Your task to perform on an android device: turn off translation in the chrome app Image 0: 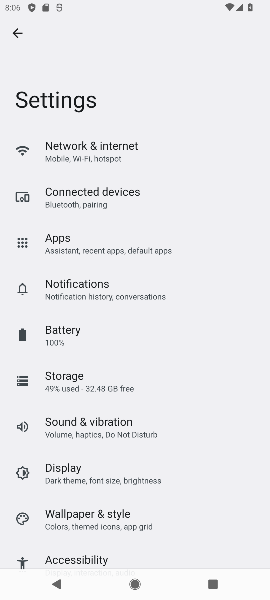
Step 0: drag from (139, 502) to (164, 257)
Your task to perform on an android device: turn off translation in the chrome app Image 1: 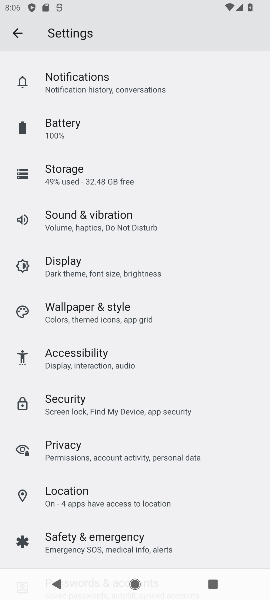
Step 1: drag from (140, 509) to (156, 211)
Your task to perform on an android device: turn off translation in the chrome app Image 2: 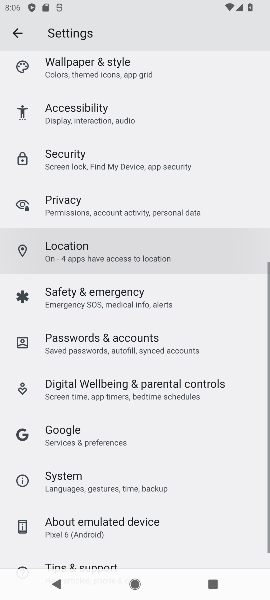
Step 2: drag from (155, 199) to (152, 598)
Your task to perform on an android device: turn off translation in the chrome app Image 3: 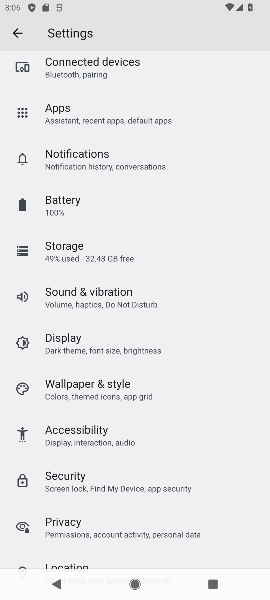
Step 3: press home button
Your task to perform on an android device: turn off translation in the chrome app Image 4: 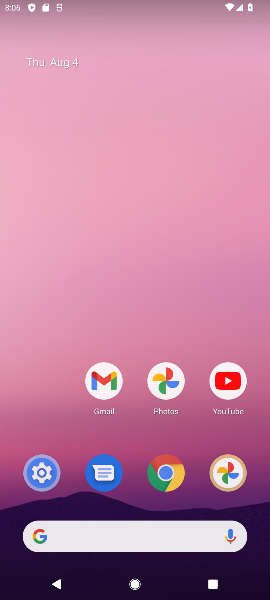
Step 4: drag from (135, 531) to (180, 193)
Your task to perform on an android device: turn off translation in the chrome app Image 5: 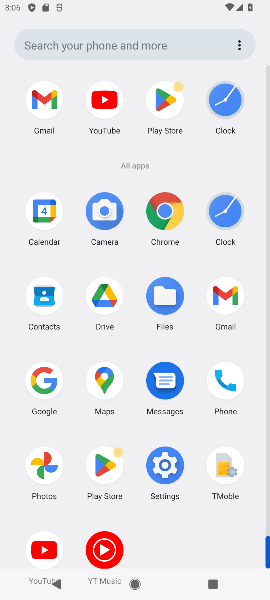
Step 5: click (168, 210)
Your task to perform on an android device: turn off translation in the chrome app Image 6: 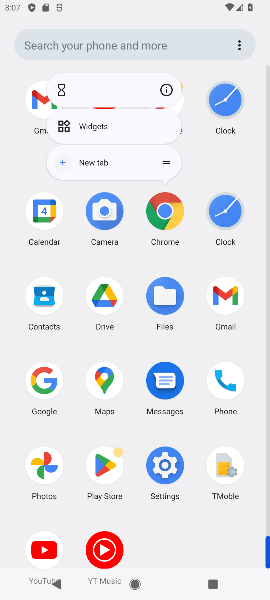
Step 6: click (160, 202)
Your task to perform on an android device: turn off translation in the chrome app Image 7: 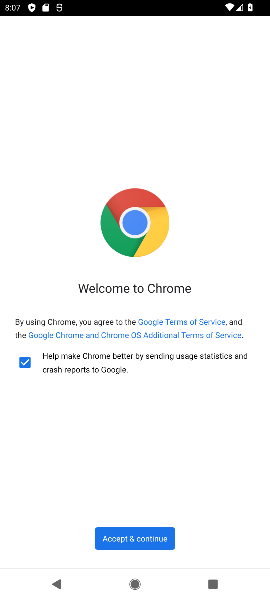
Step 7: drag from (142, 356) to (153, 185)
Your task to perform on an android device: turn off translation in the chrome app Image 8: 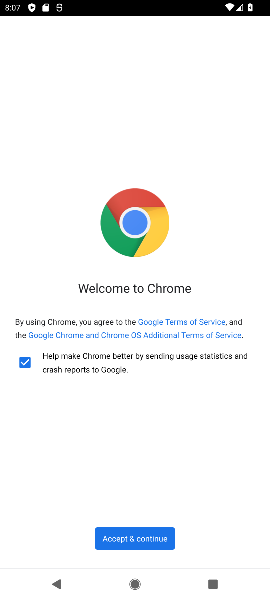
Step 8: drag from (174, 417) to (168, 229)
Your task to perform on an android device: turn off translation in the chrome app Image 9: 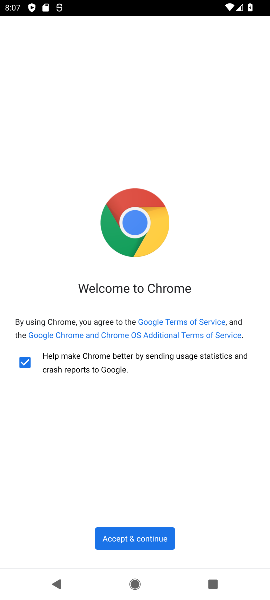
Step 9: drag from (146, 437) to (164, 189)
Your task to perform on an android device: turn off translation in the chrome app Image 10: 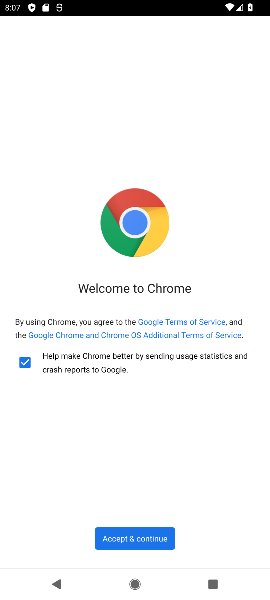
Step 10: click (131, 536)
Your task to perform on an android device: turn off translation in the chrome app Image 11: 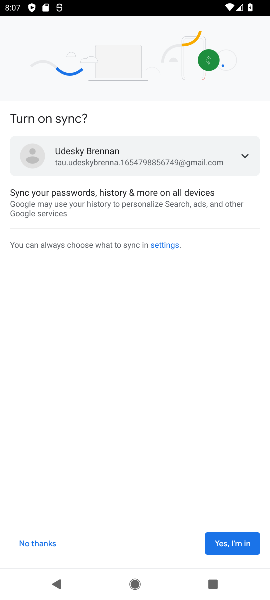
Step 11: click (225, 545)
Your task to perform on an android device: turn off translation in the chrome app Image 12: 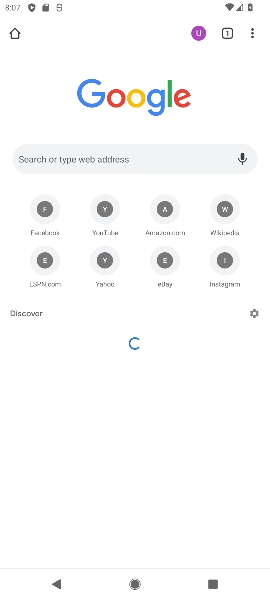
Step 12: click (232, 539)
Your task to perform on an android device: turn off translation in the chrome app Image 13: 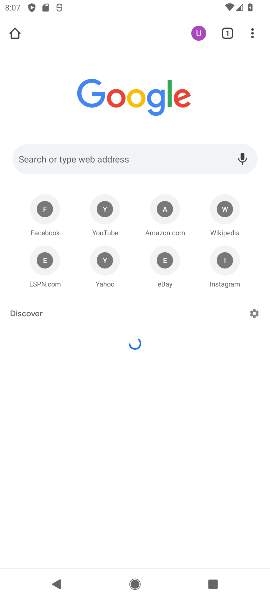
Step 13: drag from (231, 463) to (231, 324)
Your task to perform on an android device: turn off translation in the chrome app Image 14: 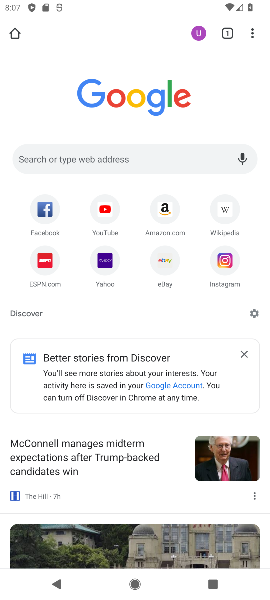
Step 14: drag from (132, 459) to (166, 268)
Your task to perform on an android device: turn off translation in the chrome app Image 15: 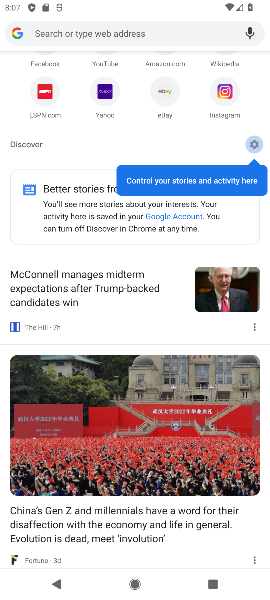
Step 15: drag from (186, 231) to (169, 525)
Your task to perform on an android device: turn off translation in the chrome app Image 16: 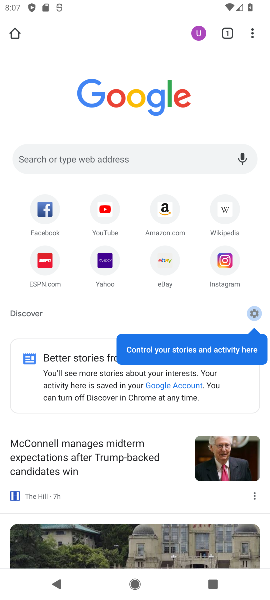
Step 16: drag from (251, 25) to (169, 294)
Your task to perform on an android device: turn off translation in the chrome app Image 17: 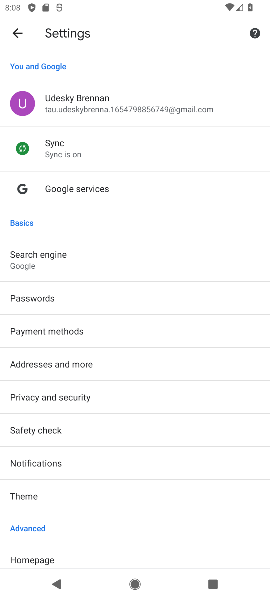
Step 17: drag from (107, 489) to (174, 142)
Your task to perform on an android device: turn off translation in the chrome app Image 18: 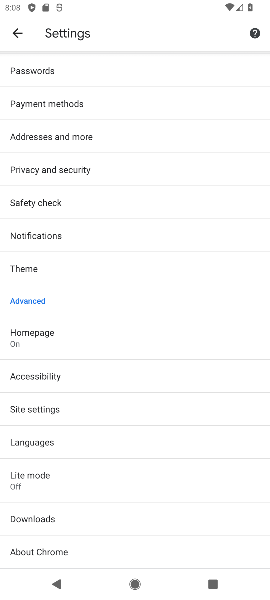
Step 18: click (57, 437)
Your task to perform on an android device: turn off translation in the chrome app Image 19: 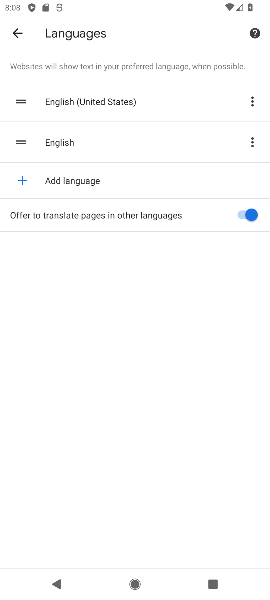
Step 19: click (244, 207)
Your task to perform on an android device: turn off translation in the chrome app Image 20: 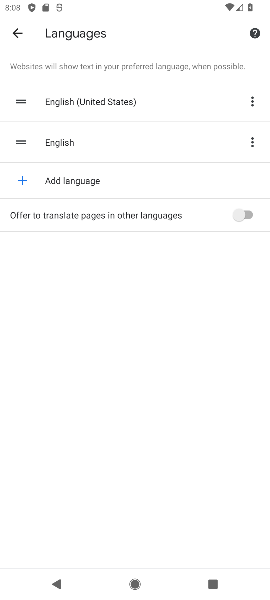
Step 20: task complete